Your task to perform on an android device: turn off picture-in-picture Image 0: 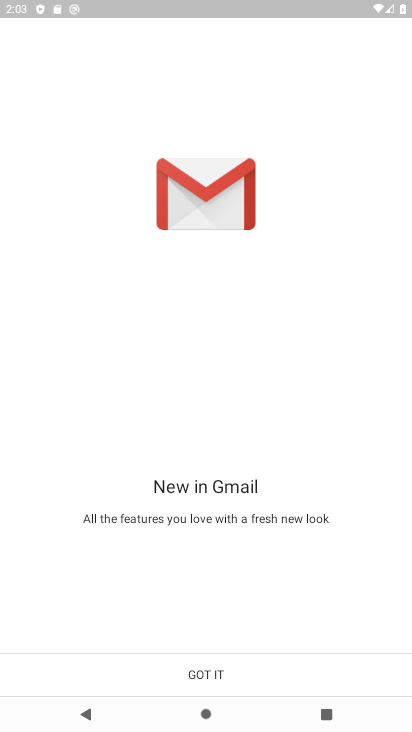
Step 0: press home button
Your task to perform on an android device: turn off picture-in-picture Image 1: 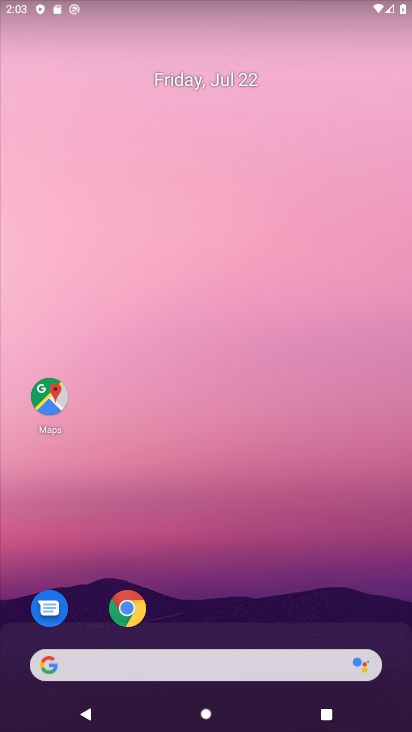
Step 1: click (123, 604)
Your task to perform on an android device: turn off picture-in-picture Image 2: 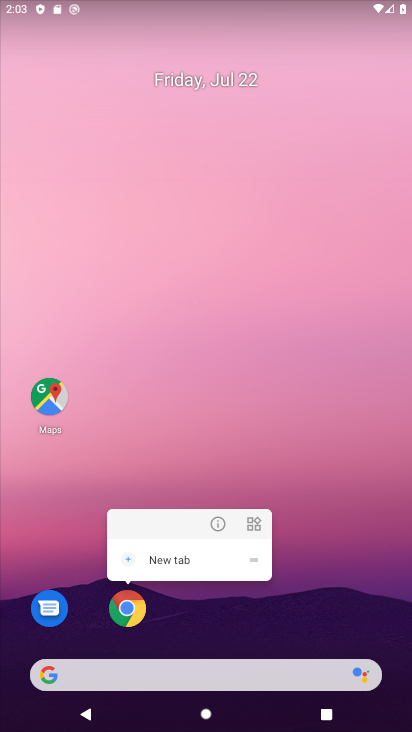
Step 2: click (218, 522)
Your task to perform on an android device: turn off picture-in-picture Image 3: 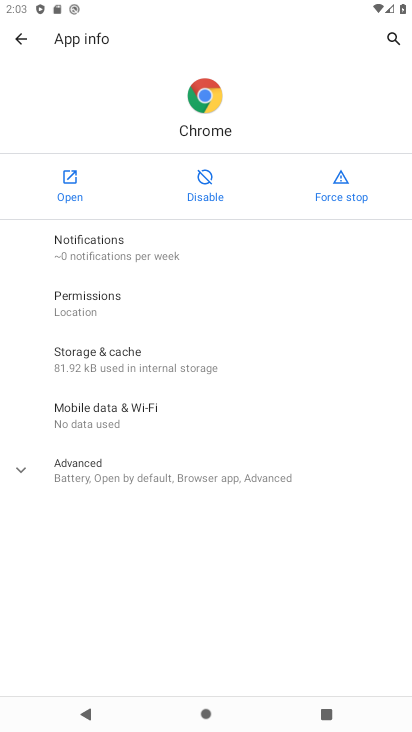
Step 3: click (31, 467)
Your task to perform on an android device: turn off picture-in-picture Image 4: 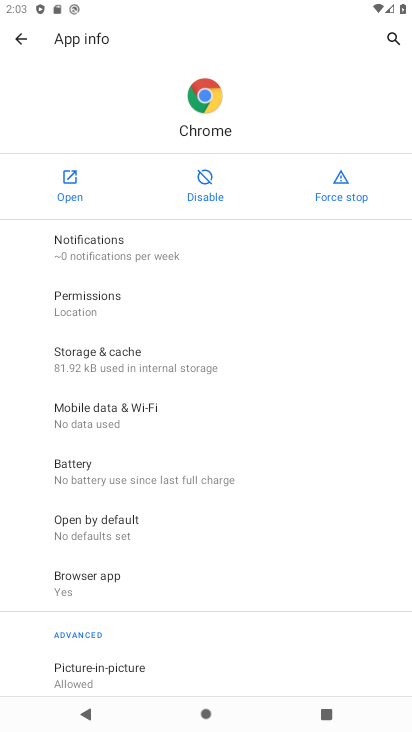
Step 4: click (124, 672)
Your task to perform on an android device: turn off picture-in-picture Image 5: 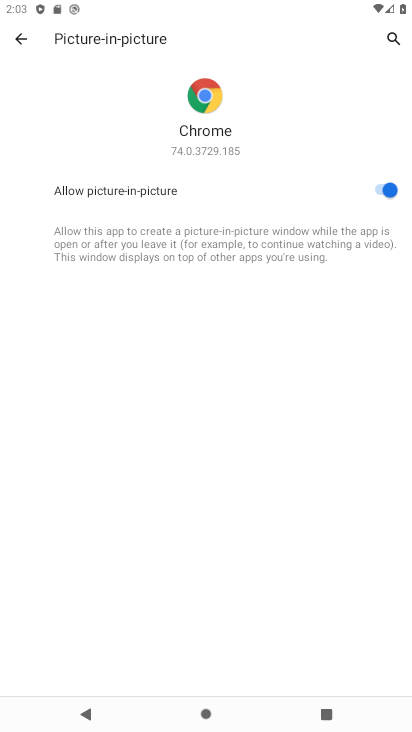
Step 5: click (376, 190)
Your task to perform on an android device: turn off picture-in-picture Image 6: 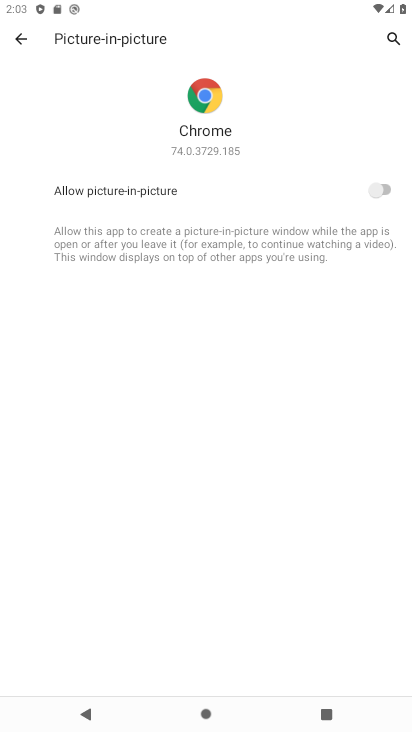
Step 6: task complete